Your task to perform on an android device: turn off notifications settings in the gmail app Image 0: 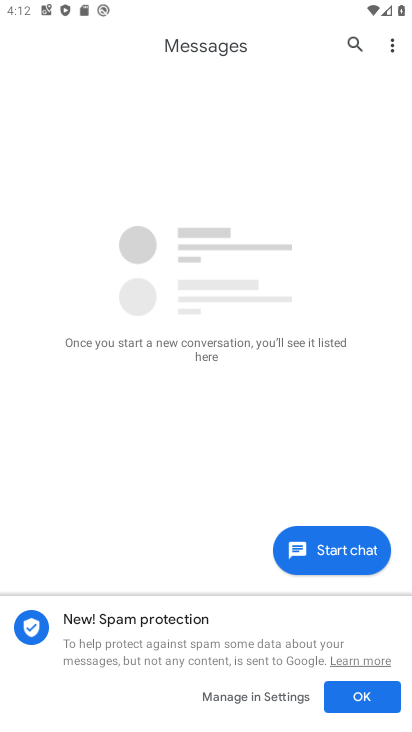
Step 0: press home button
Your task to perform on an android device: turn off notifications settings in the gmail app Image 1: 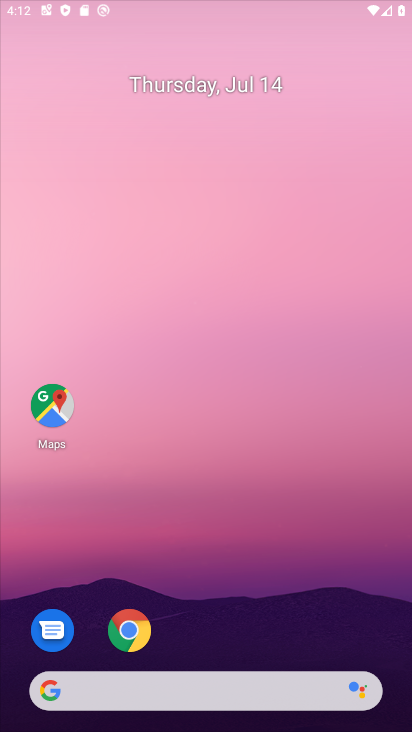
Step 1: drag from (283, 259) to (292, 14)
Your task to perform on an android device: turn off notifications settings in the gmail app Image 2: 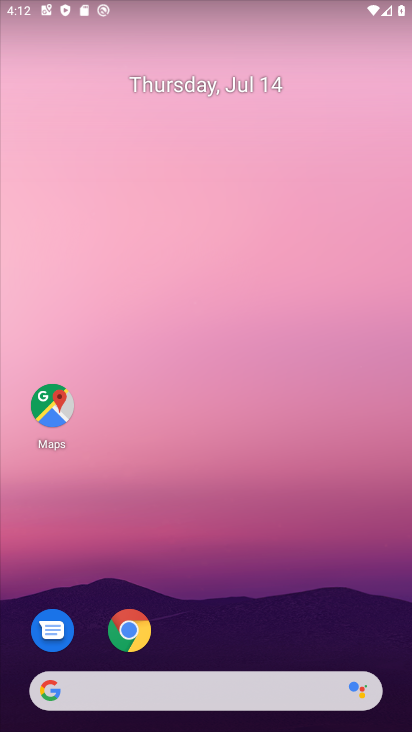
Step 2: drag from (283, 679) to (318, 85)
Your task to perform on an android device: turn off notifications settings in the gmail app Image 3: 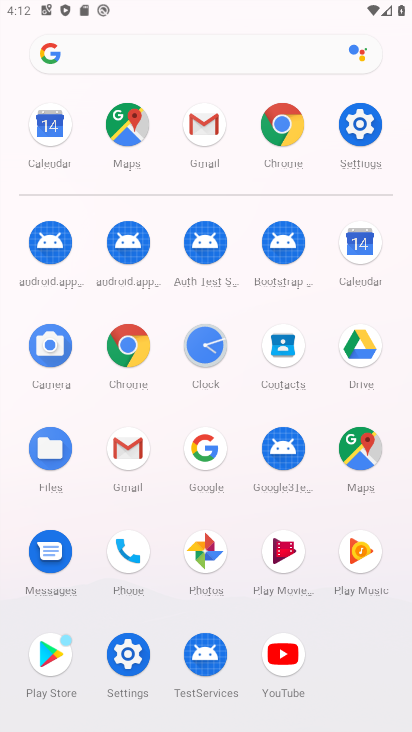
Step 3: click (133, 462)
Your task to perform on an android device: turn off notifications settings in the gmail app Image 4: 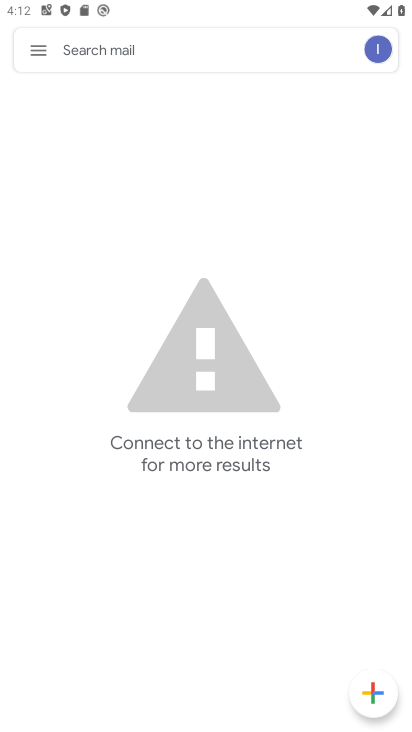
Step 4: click (50, 50)
Your task to perform on an android device: turn off notifications settings in the gmail app Image 5: 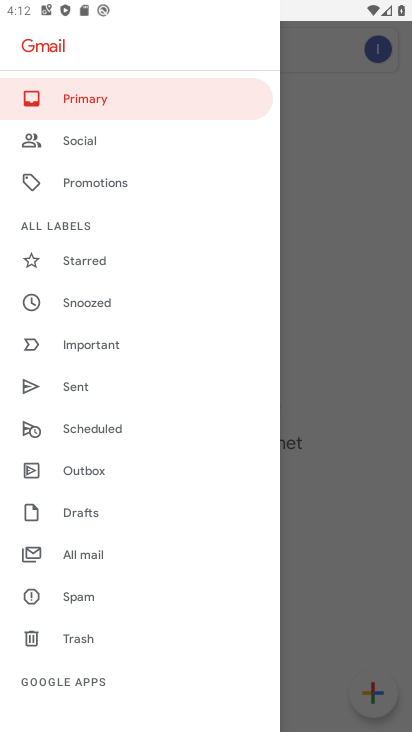
Step 5: drag from (76, 678) to (112, 255)
Your task to perform on an android device: turn off notifications settings in the gmail app Image 6: 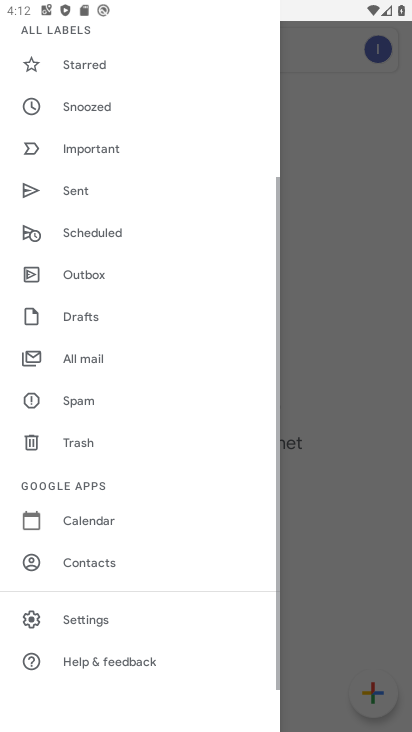
Step 6: click (86, 626)
Your task to perform on an android device: turn off notifications settings in the gmail app Image 7: 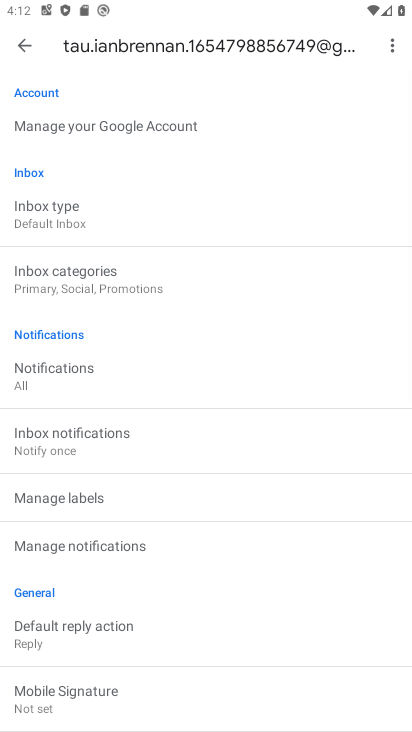
Step 7: click (119, 542)
Your task to perform on an android device: turn off notifications settings in the gmail app Image 8: 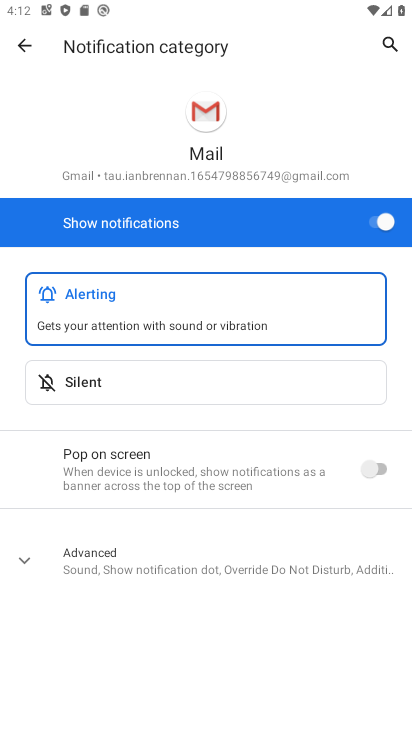
Step 8: click (377, 224)
Your task to perform on an android device: turn off notifications settings in the gmail app Image 9: 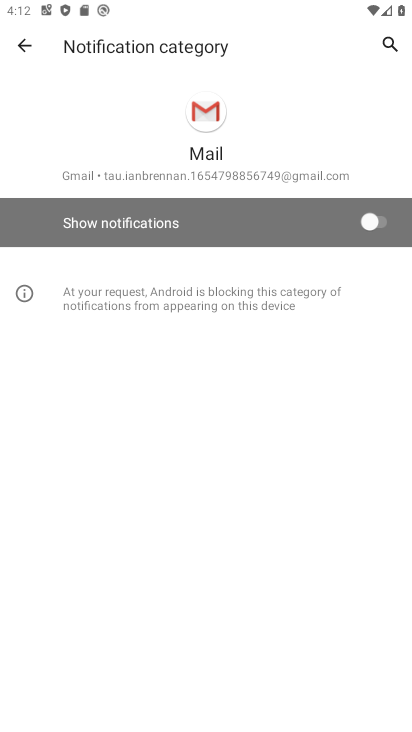
Step 9: task complete